Your task to perform on an android device: Is it going to rain today? Image 0: 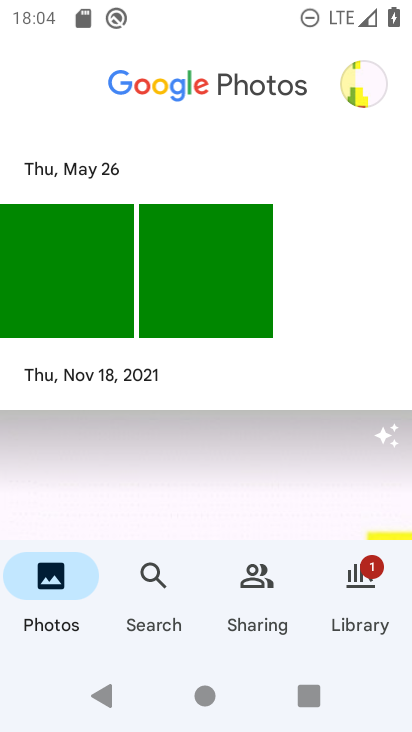
Step 0: press home button
Your task to perform on an android device: Is it going to rain today? Image 1: 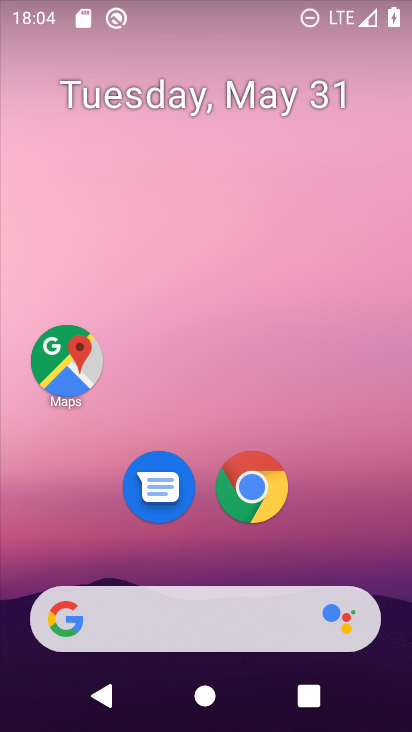
Step 1: click (226, 608)
Your task to perform on an android device: Is it going to rain today? Image 2: 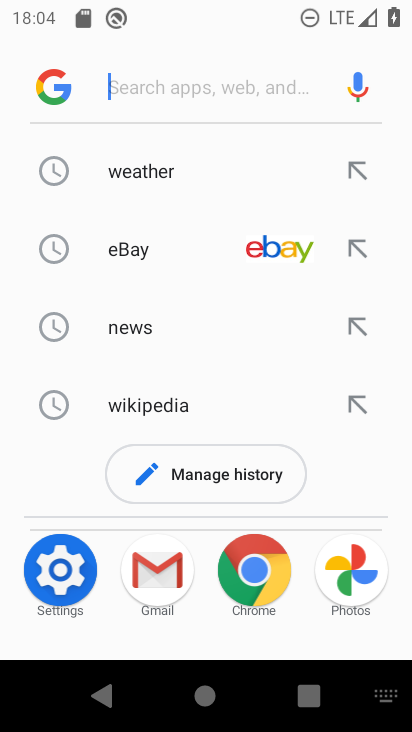
Step 2: click (154, 164)
Your task to perform on an android device: Is it going to rain today? Image 3: 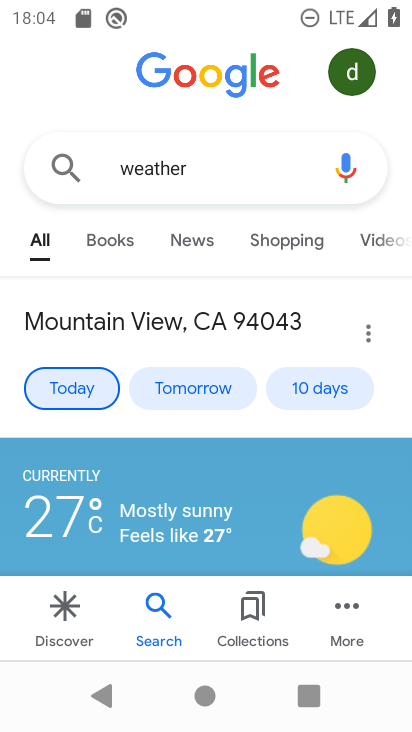
Step 3: task complete